Your task to perform on an android device: Check the news Image 0: 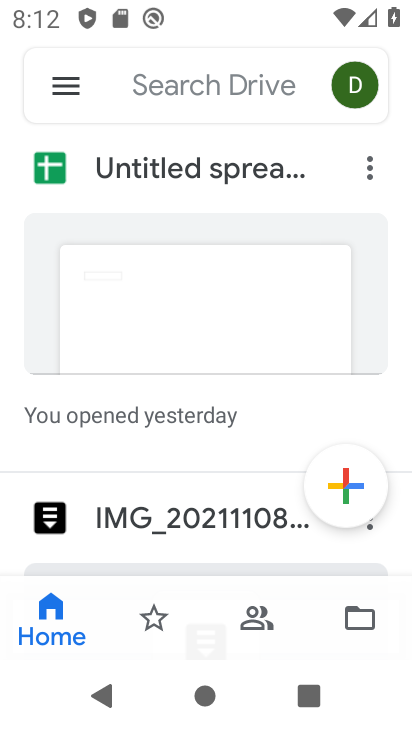
Step 0: press home button
Your task to perform on an android device: Check the news Image 1: 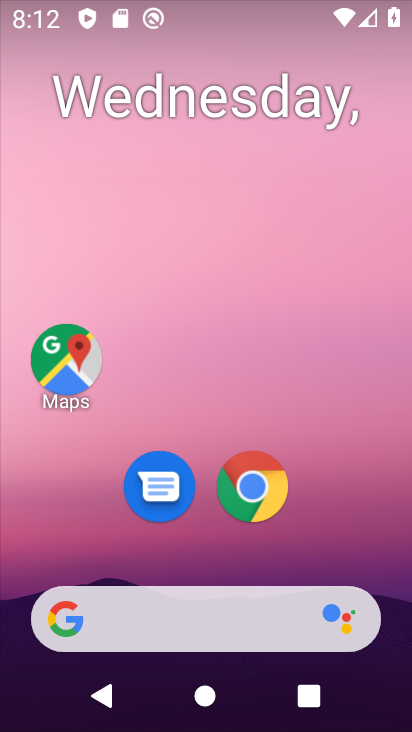
Step 1: task complete